Your task to perform on an android device: Add "logitech g903" to the cart on amazon, then select checkout. Image 0: 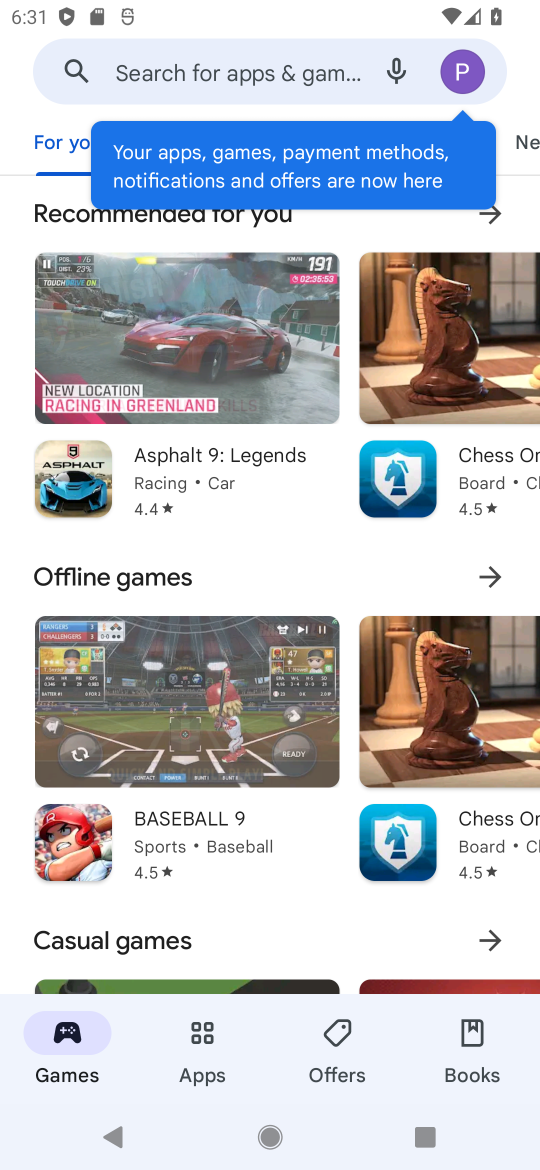
Step 0: press home button
Your task to perform on an android device: Add "logitech g903" to the cart on amazon, then select checkout. Image 1: 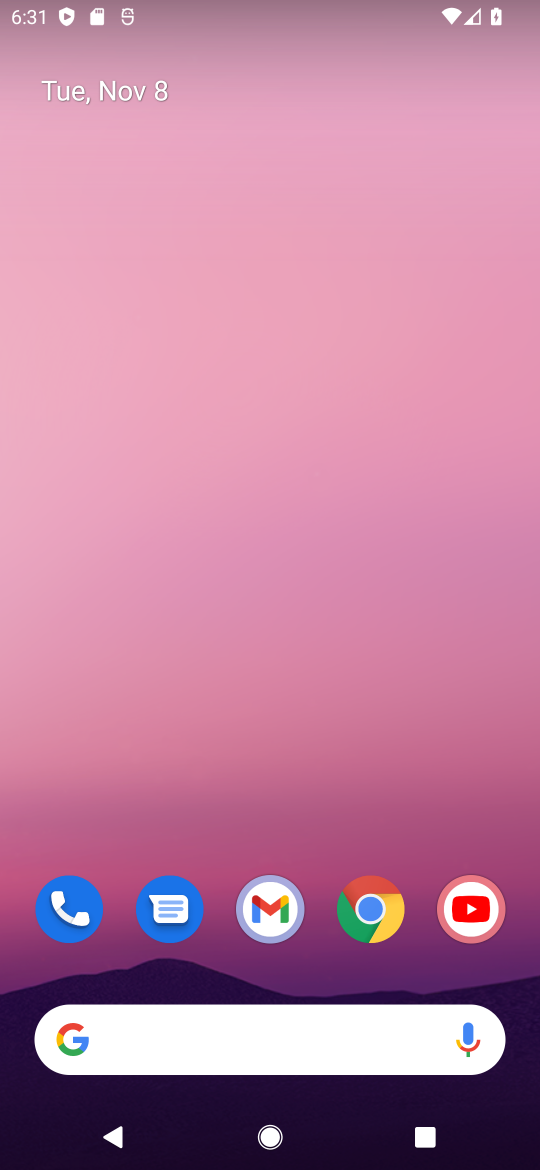
Step 1: click (405, 923)
Your task to perform on an android device: Add "logitech g903" to the cart on amazon, then select checkout. Image 2: 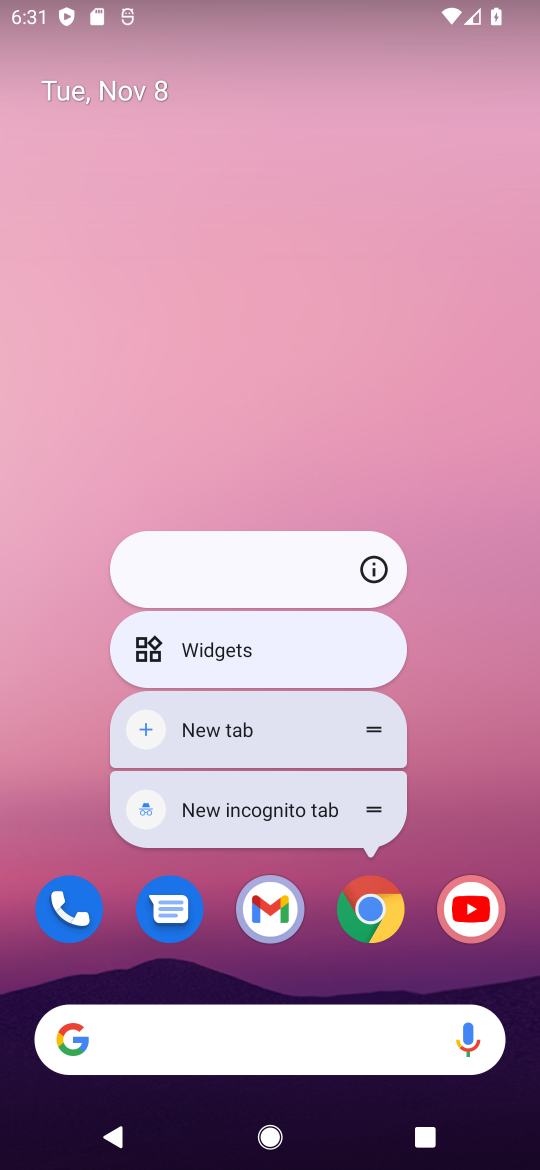
Step 2: click (361, 901)
Your task to perform on an android device: Add "logitech g903" to the cart on amazon, then select checkout. Image 3: 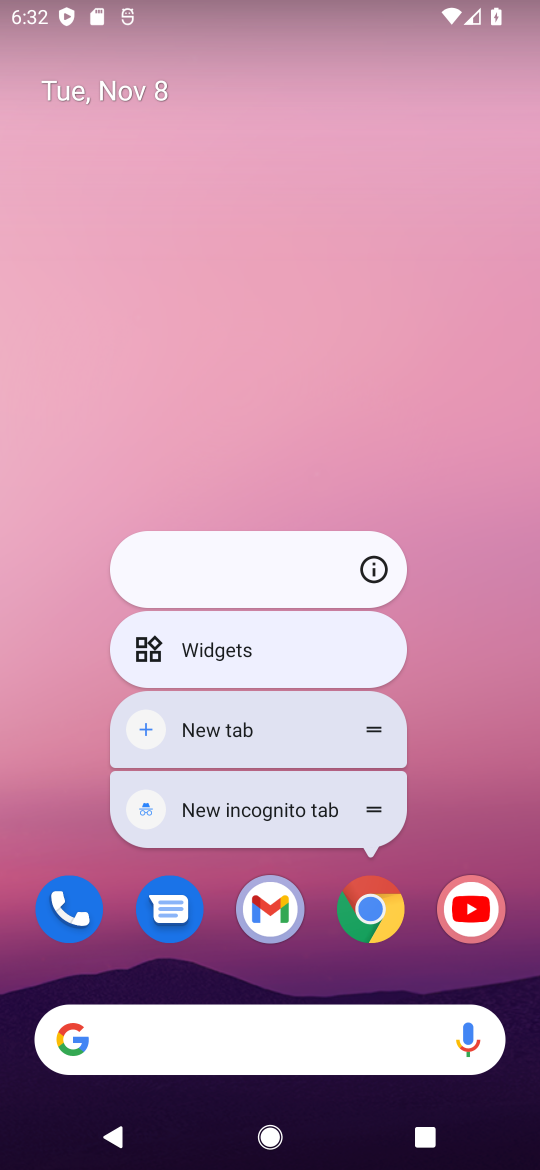
Step 3: click (361, 898)
Your task to perform on an android device: Add "logitech g903" to the cart on amazon, then select checkout. Image 4: 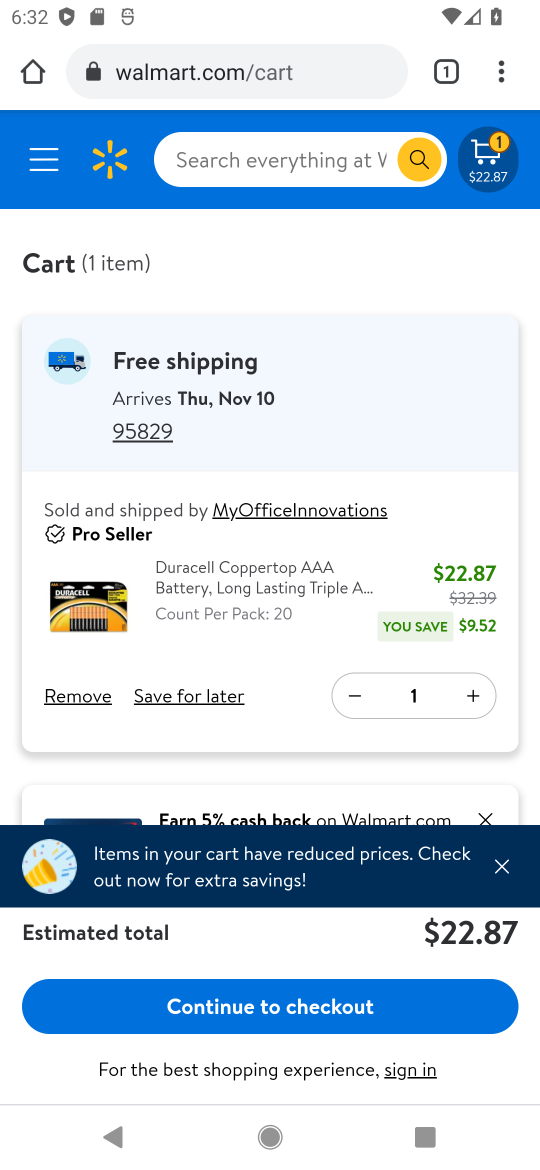
Step 4: click (335, 65)
Your task to perform on an android device: Add "logitech g903" to the cart on amazon, then select checkout. Image 5: 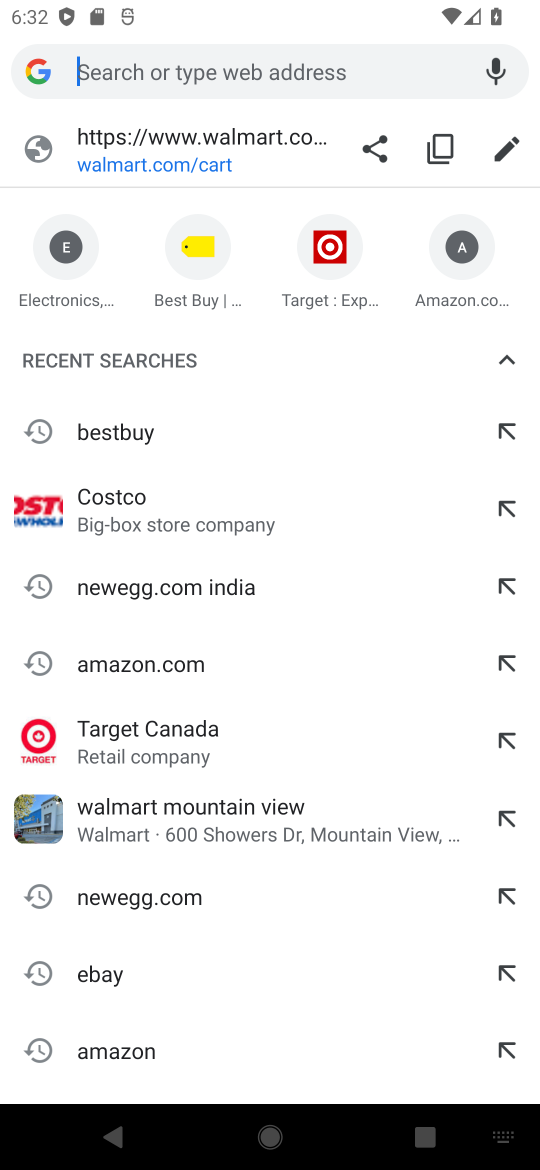
Step 5: click (129, 656)
Your task to perform on an android device: Add "logitech g903" to the cart on amazon, then select checkout. Image 6: 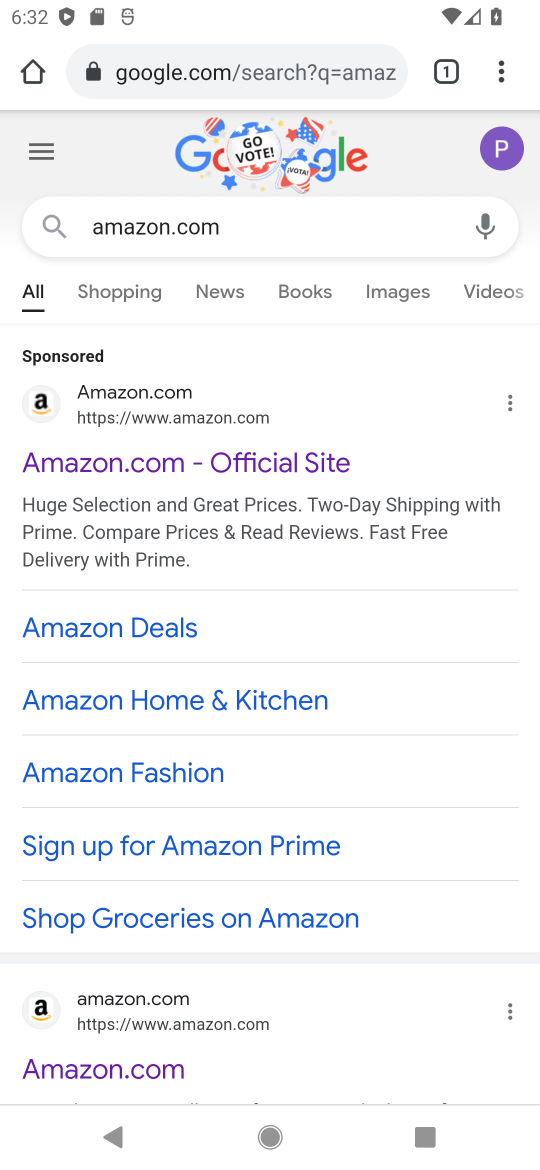
Step 6: click (175, 459)
Your task to perform on an android device: Add "logitech g903" to the cart on amazon, then select checkout. Image 7: 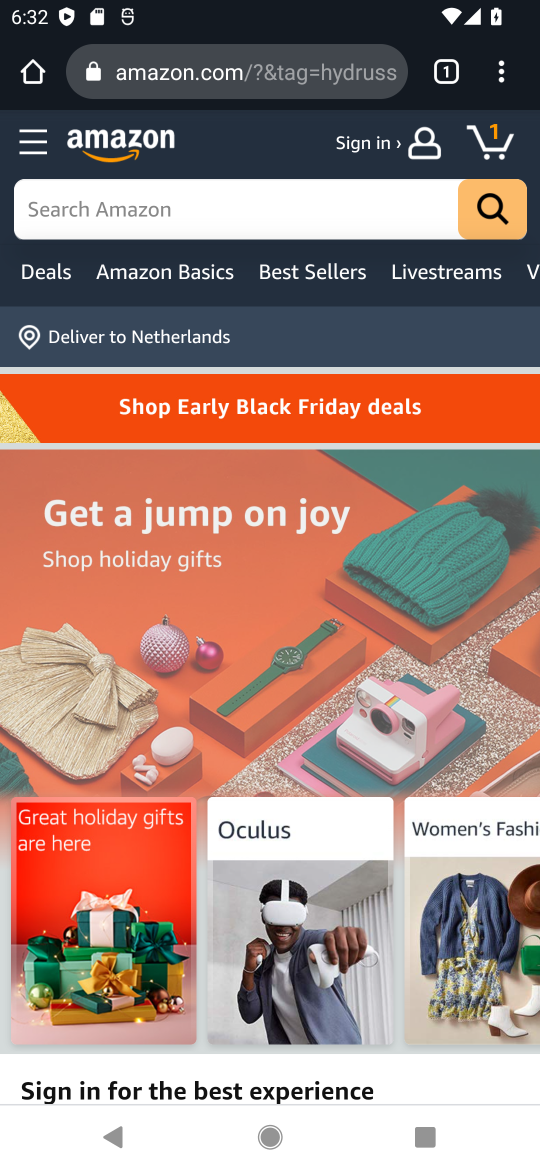
Step 7: click (128, 209)
Your task to perform on an android device: Add "logitech g903" to the cart on amazon, then select checkout. Image 8: 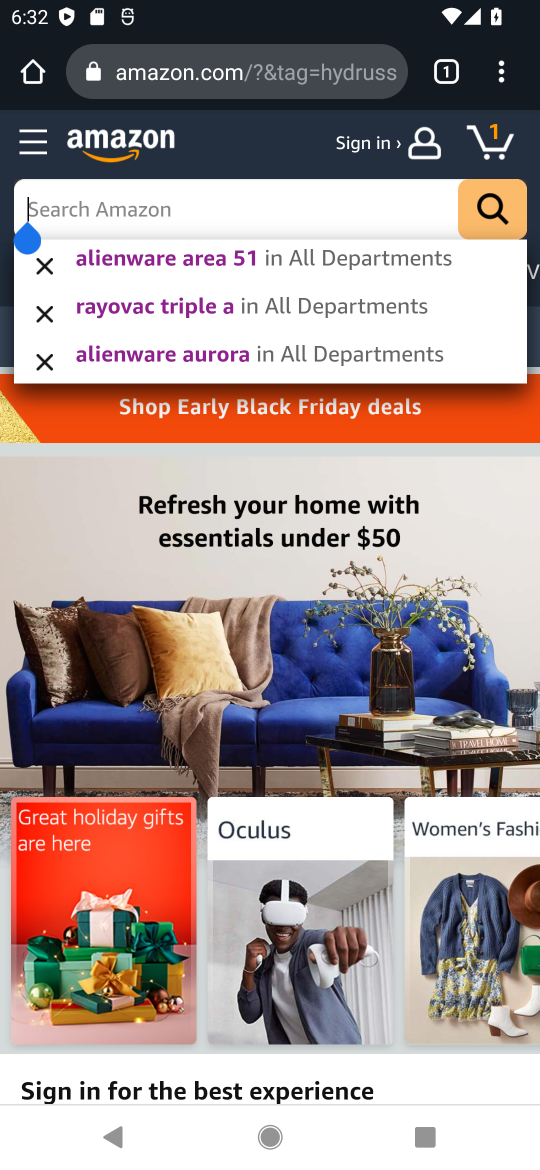
Step 8: click (127, 197)
Your task to perform on an android device: Add "logitech g903" to the cart on amazon, then select checkout. Image 9: 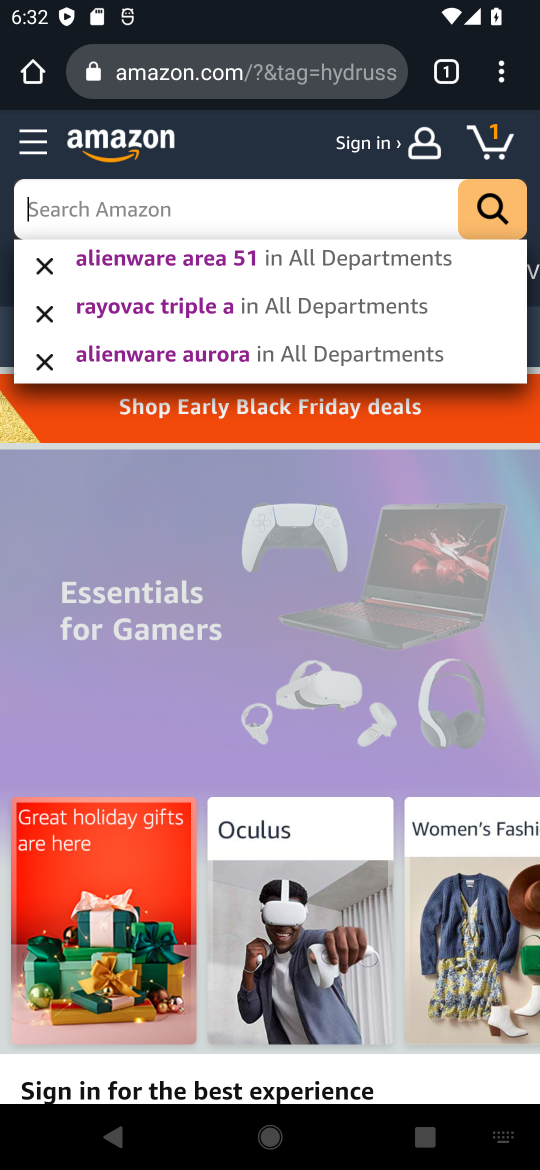
Step 9: type "logitech g903"
Your task to perform on an android device: Add "logitech g903" to the cart on amazon, then select checkout. Image 10: 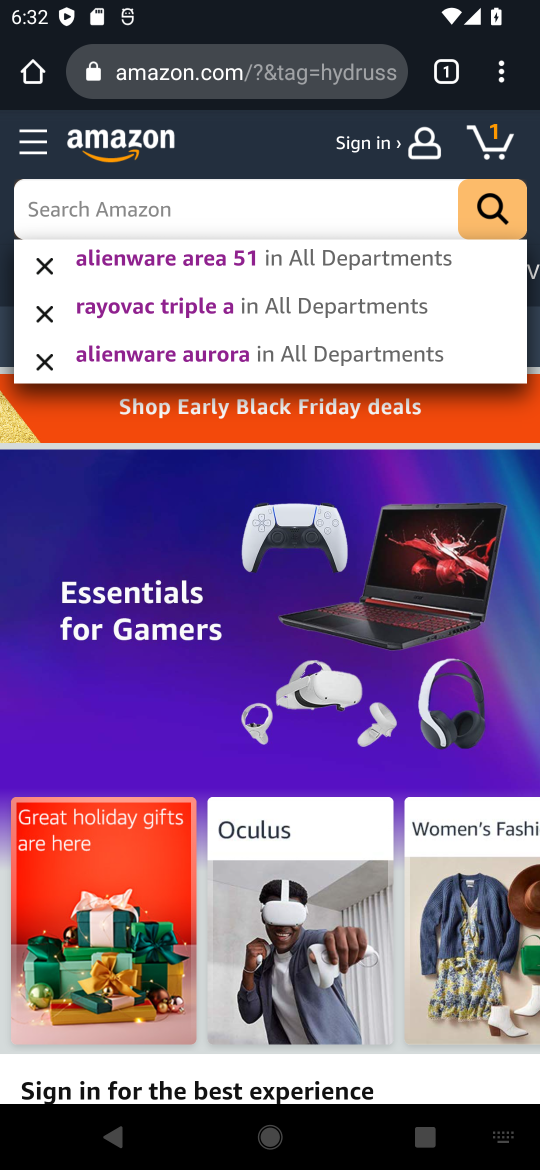
Step 10: press enter
Your task to perform on an android device: Add "logitech g903" to the cart on amazon, then select checkout. Image 11: 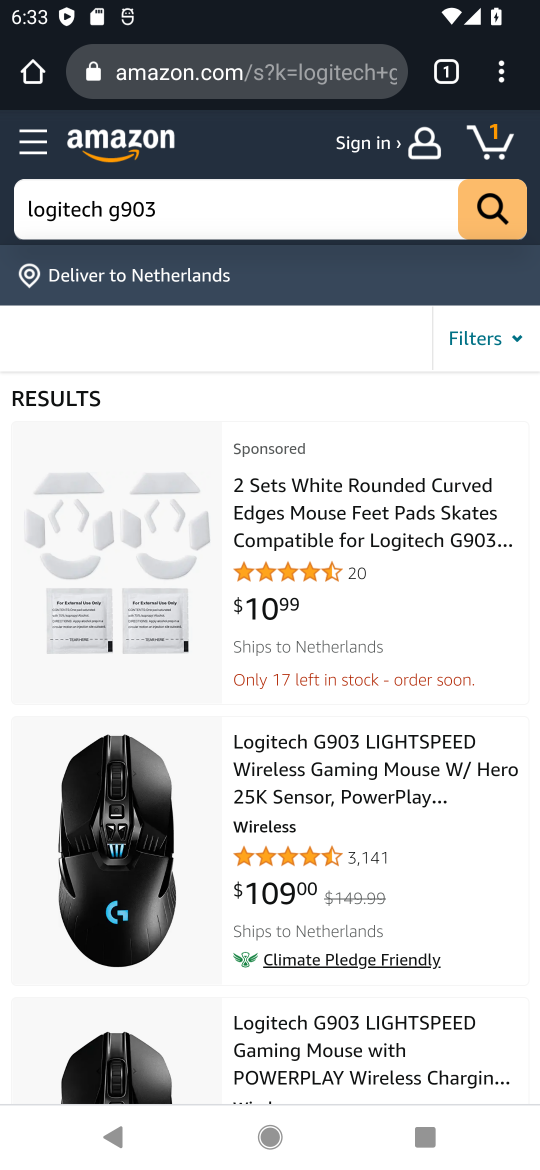
Step 11: click (331, 775)
Your task to perform on an android device: Add "logitech g903" to the cart on amazon, then select checkout. Image 12: 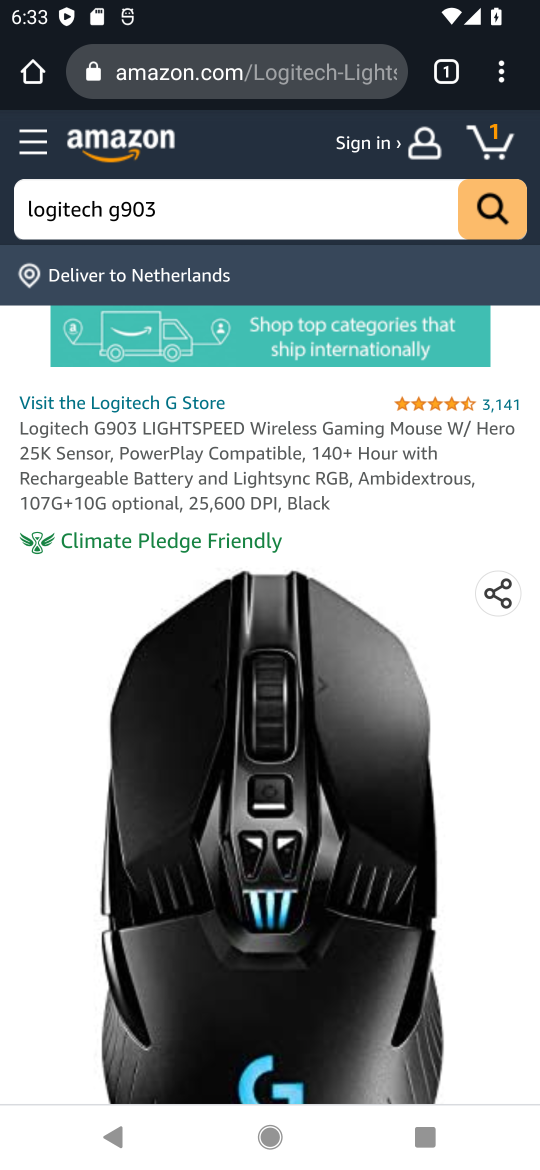
Step 12: drag from (86, 951) to (535, 205)
Your task to perform on an android device: Add "logitech g903" to the cart on amazon, then select checkout. Image 13: 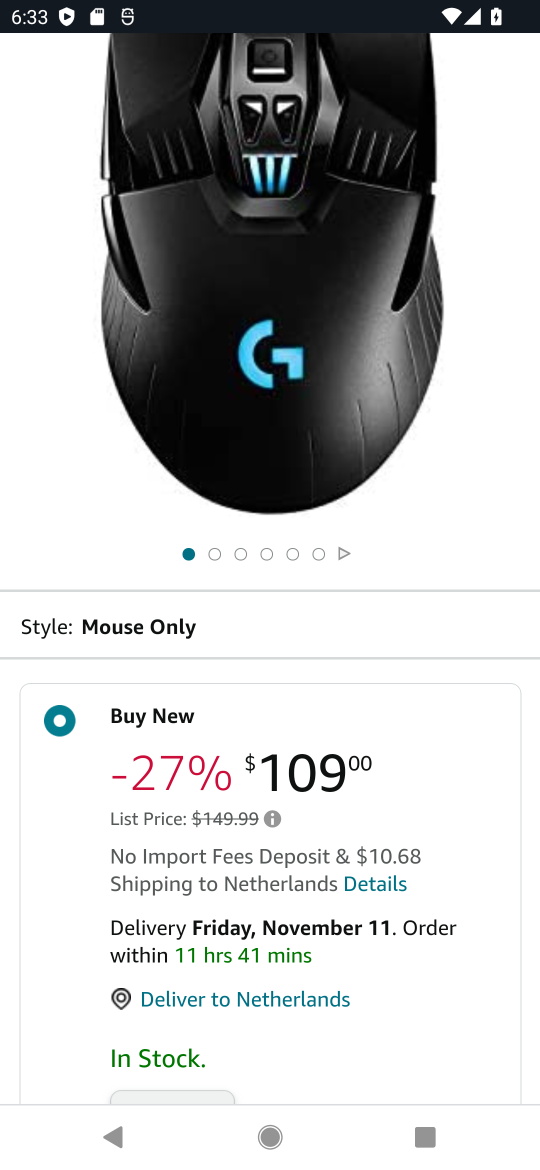
Step 13: drag from (267, 986) to (486, 74)
Your task to perform on an android device: Add "logitech g903" to the cart on amazon, then select checkout. Image 14: 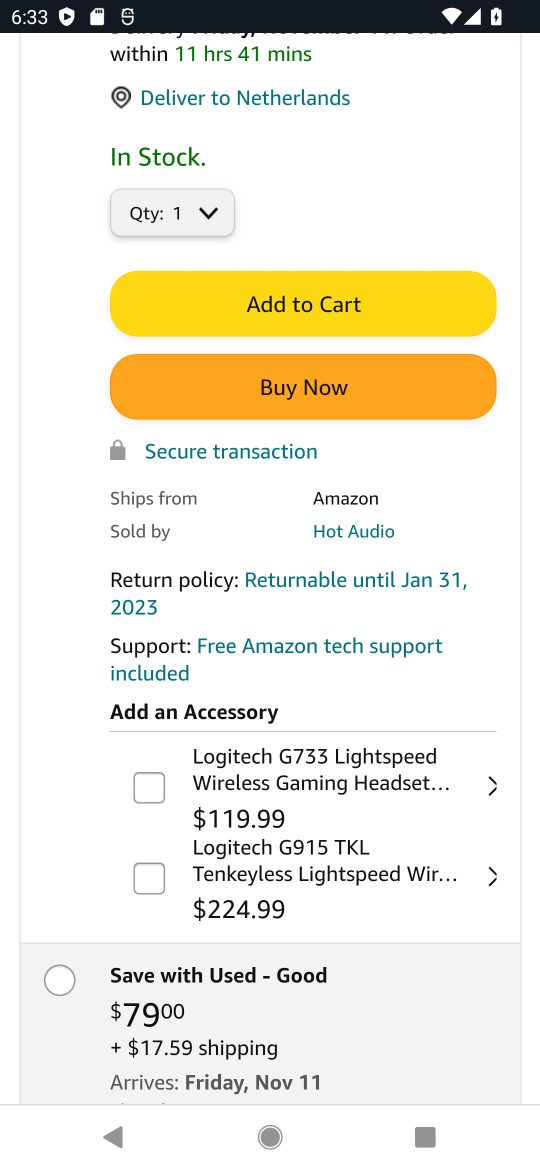
Step 14: click (297, 303)
Your task to perform on an android device: Add "logitech g903" to the cart on amazon, then select checkout. Image 15: 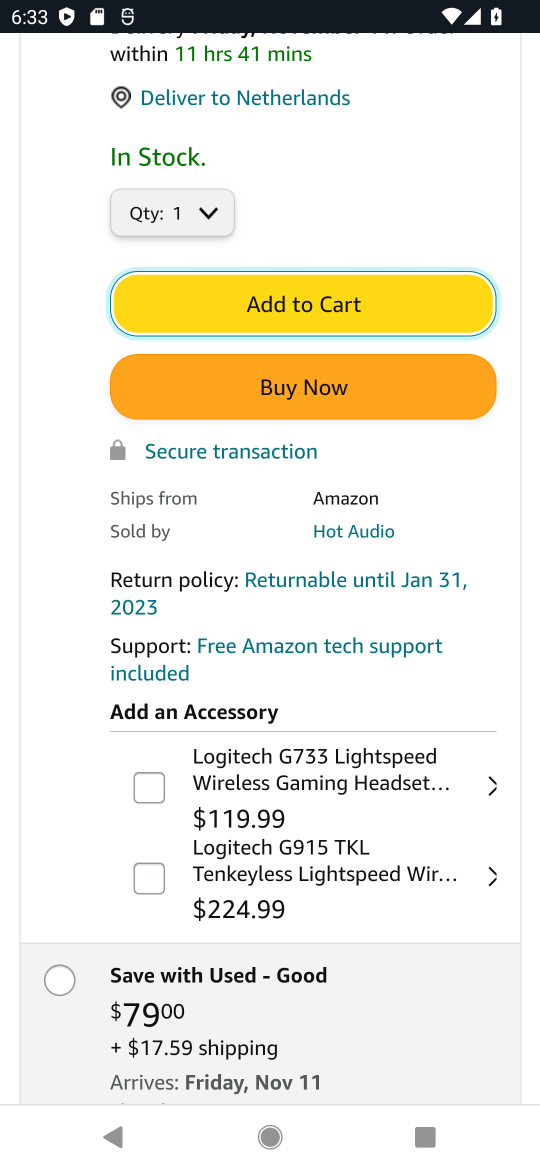
Step 15: click (326, 307)
Your task to perform on an android device: Add "logitech g903" to the cart on amazon, then select checkout. Image 16: 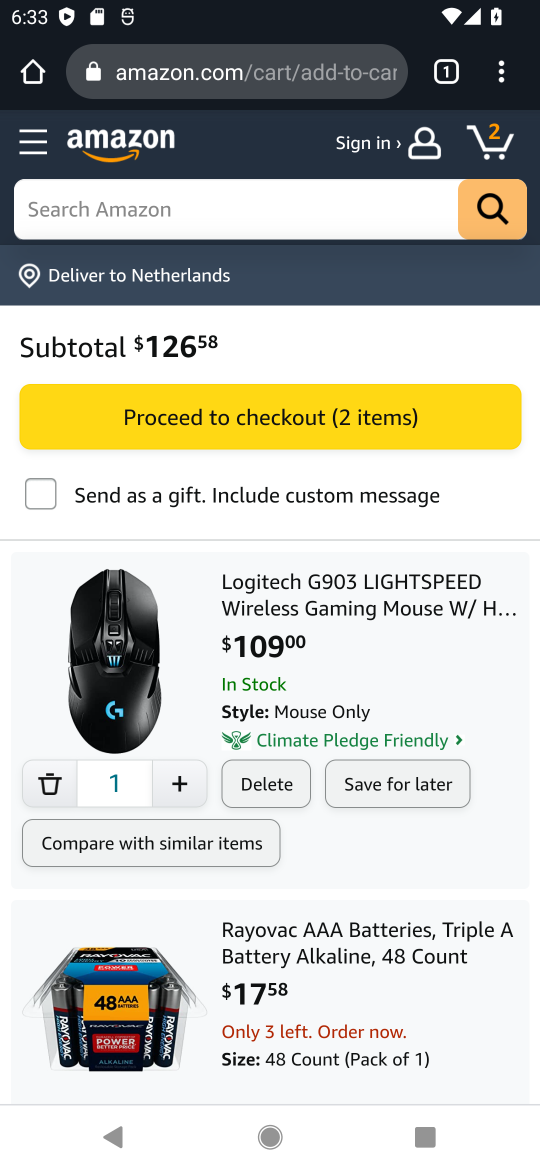
Step 16: drag from (189, 918) to (353, 541)
Your task to perform on an android device: Add "logitech g903" to the cart on amazon, then select checkout. Image 17: 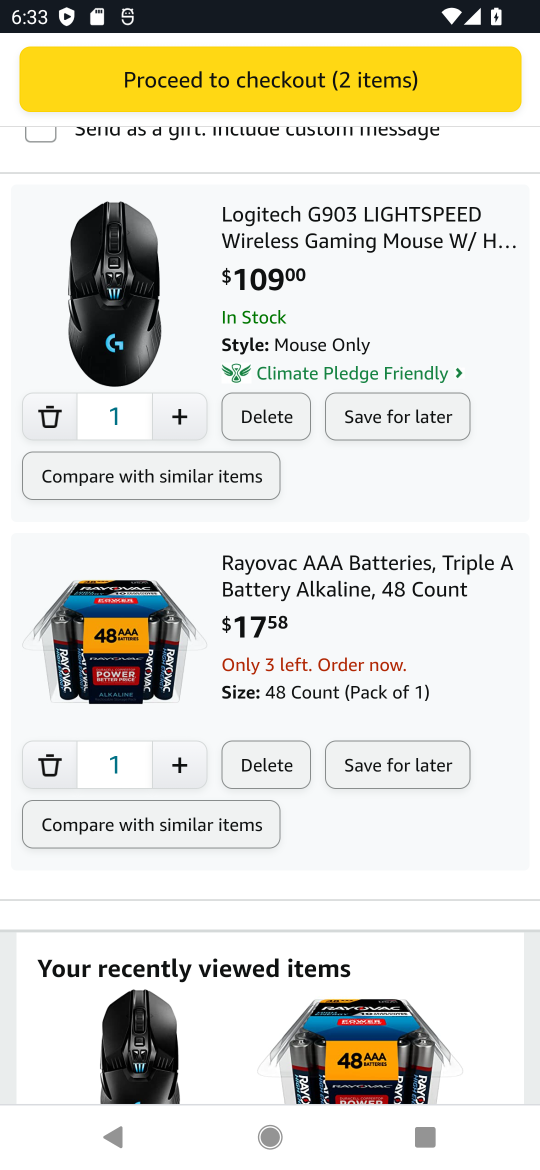
Step 17: click (261, 753)
Your task to perform on an android device: Add "logitech g903" to the cart on amazon, then select checkout. Image 18: 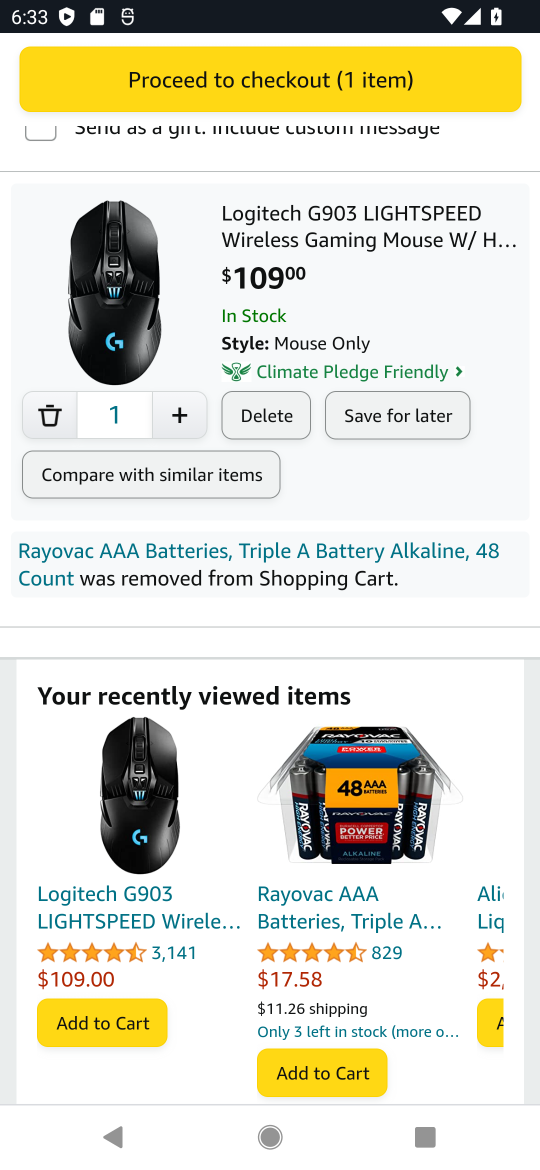
Step 18: click (271, 67)
Your task to perform on an android device: Add "logitech g903" to the cart on amazon, then select checkout. Image 19: 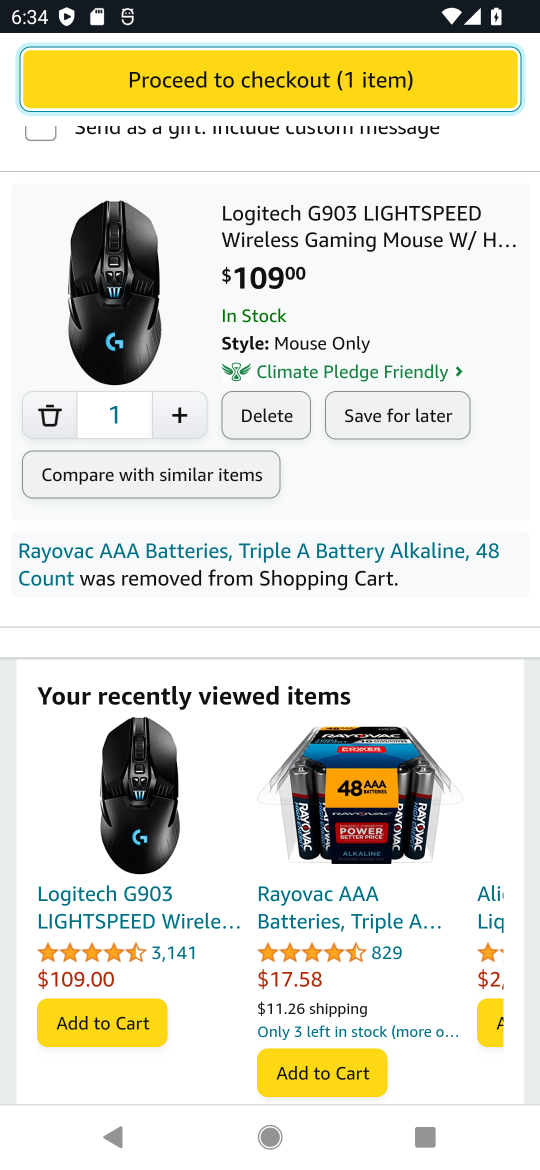
Step 19: click (264, 73)
Your task to perform on an android device: Add "logitech g903" to the cart on amazon, then select checkout. Image 20: 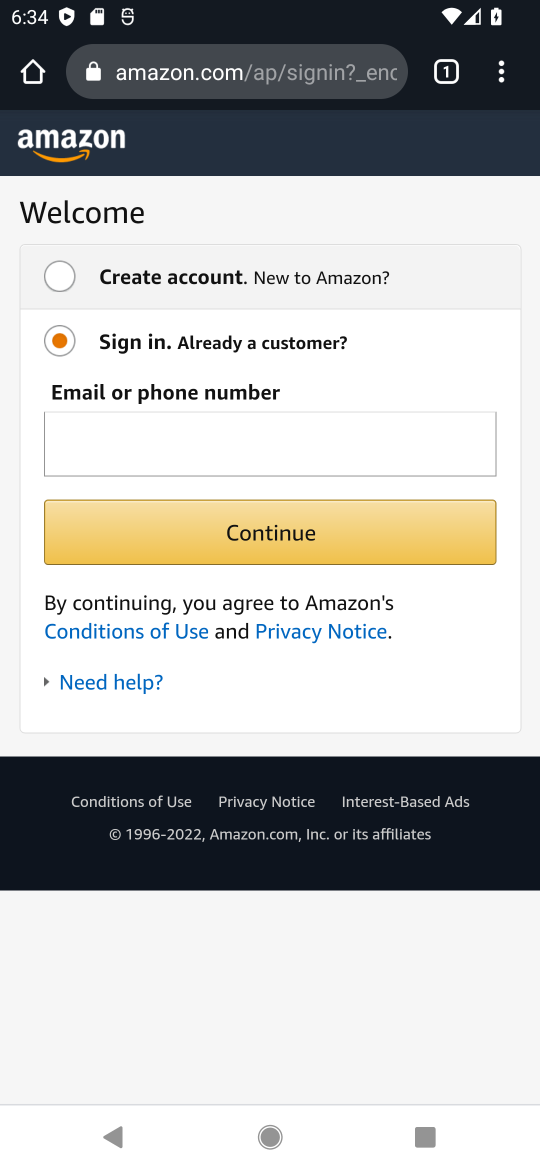
Step 20: task complete